Your task to perform on an android device: Open Youtube and go to the subscriptions tab Image 0: 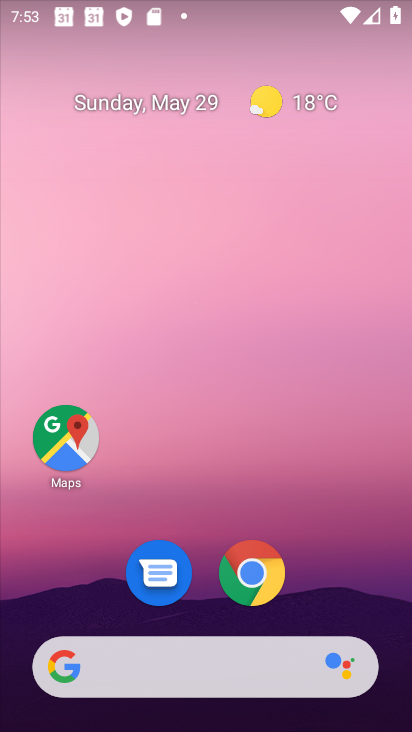
Step 0: drag from (92, 625) to (220, 107)
Your task to perform on an android device: Open Youtube and go to the subscriptions tab Image 1: 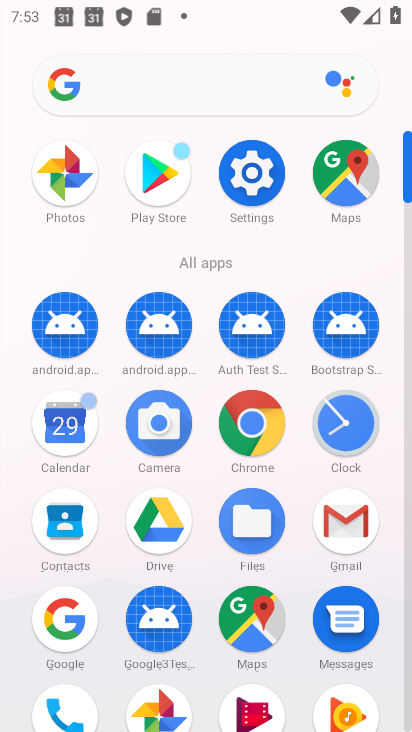
Step 1: drag from (242, 608) to (346, 363)
Your task to perform on an android device: Open Youtube and go to the subscriptions tab Image 2: 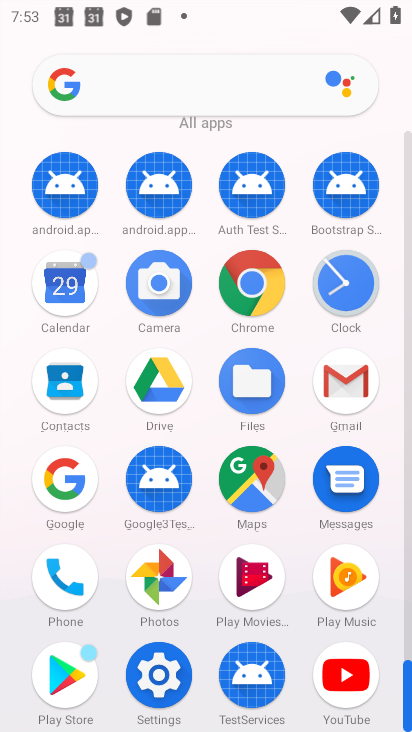
Step 2: click (349, 673)
Your task to perform on an android device: Open Youtube and go to the subscriptions tab Image 3: 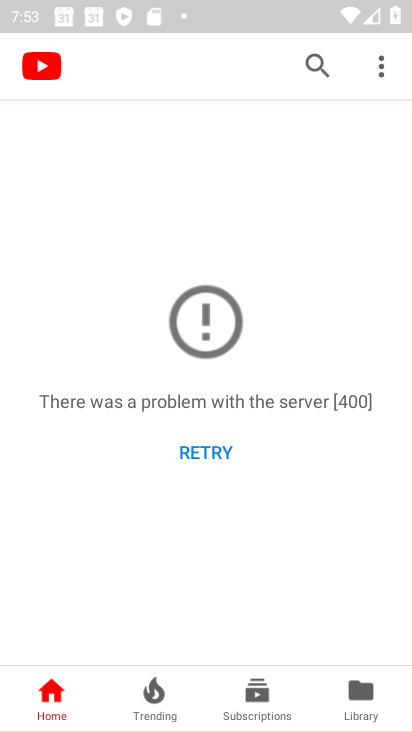
Step 3: click (255, 698)
Your task to perform on an android device: Open Youtube and go to the subscriptions tab Image 4: 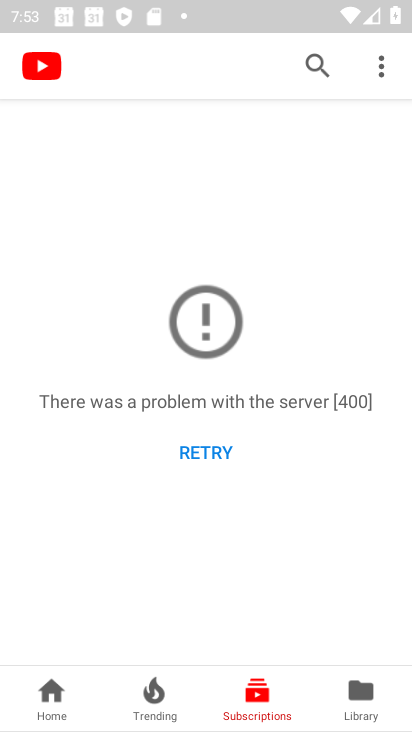
Step 4: task complete